Your task to perform on an android device: Open Google Chrome Image 0: 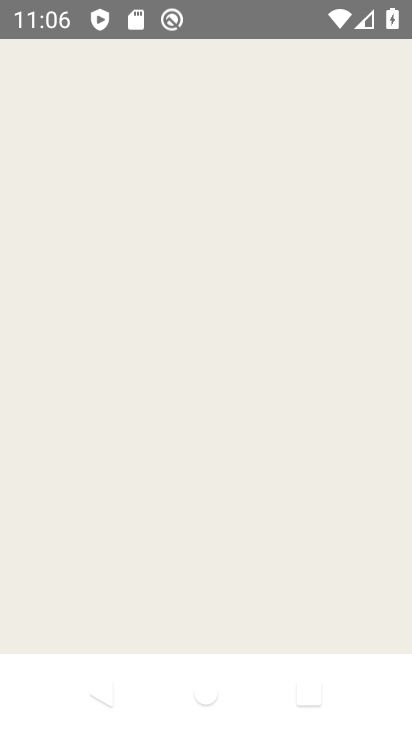
Step 0: press home button
Your task to perform on an android device: Open Google Chrome Image 1: 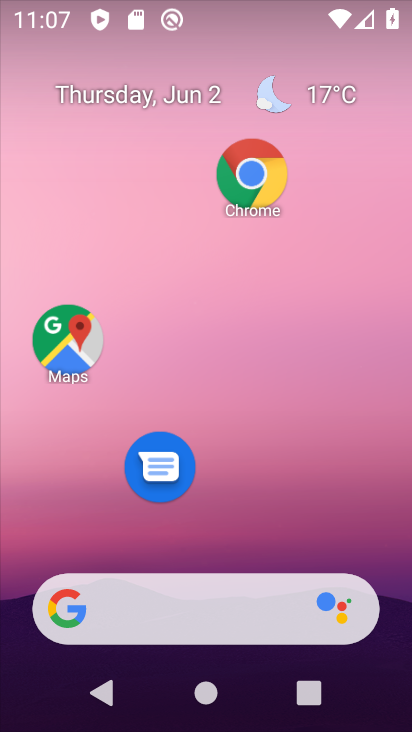
Step 1: click (250, 187)
Your task to perform on an android device: Open Google Chrome Image 2: 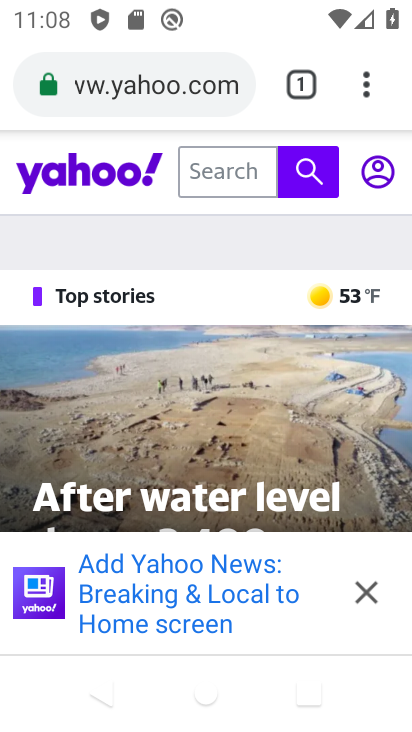
Step 2: task complete